Your task to perform on an android device: Open Amazon Image 0: 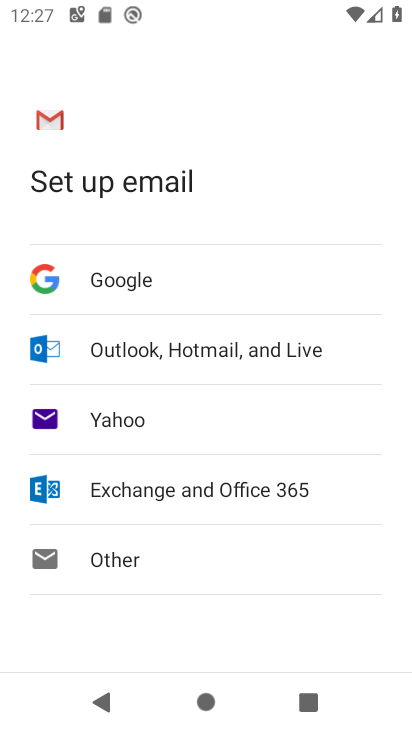
Step 0: press home button
Your task to perform on an android device: Open Amazon Image 1: 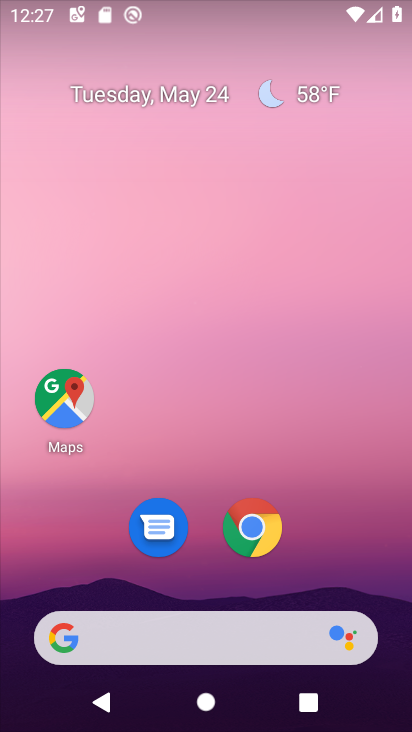
Step 1: click (267, 537)
Your task to perform on an android device: Open Amazon Image 2: 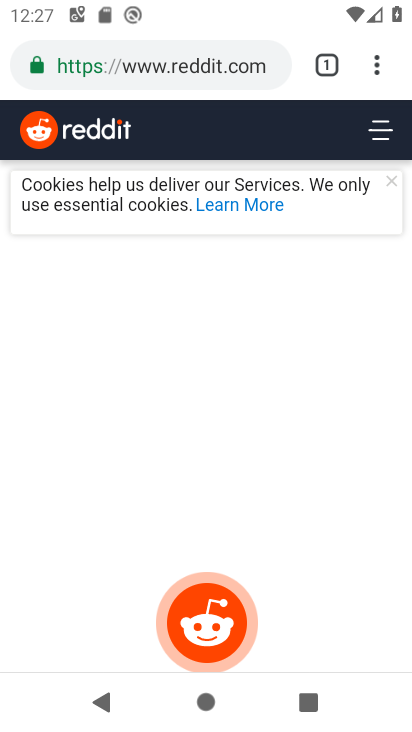
Step 2: click (230, 78)
Your task to perform on an android device: Open Amazon Image 3: 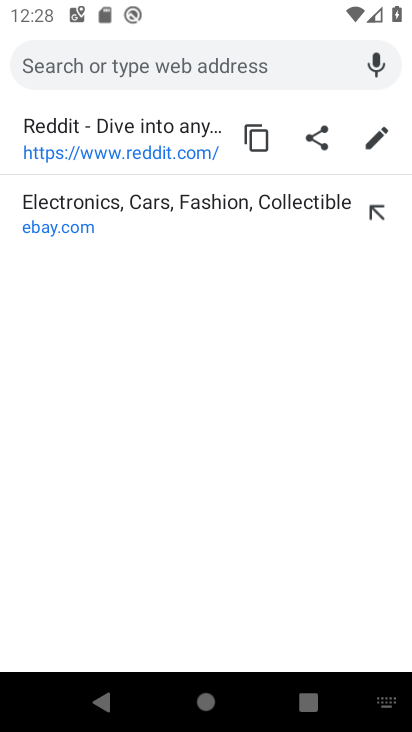
Step 3: type "amazon"
Your task to perform on an android device: Open Amazon Image 4: 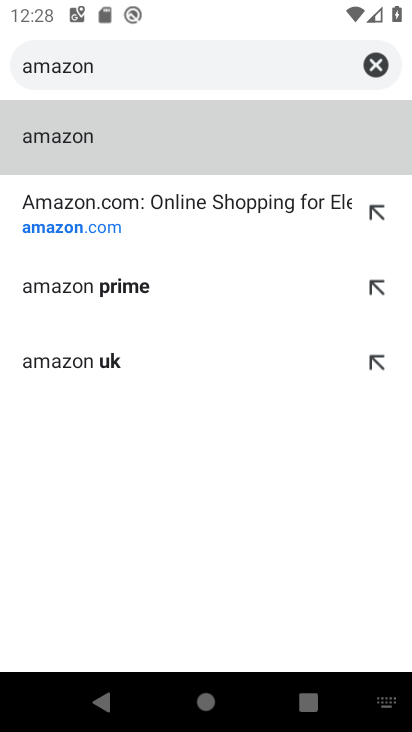
Step 4: click (46, 232)
Your task to perform on an android device: Open Amazon Image 5: 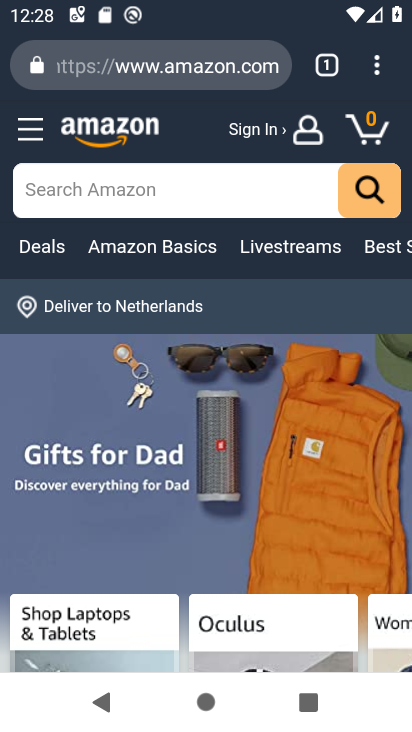
Step 5: task complete